Your task to perform on an android device: Open the stopwatch Image 0: 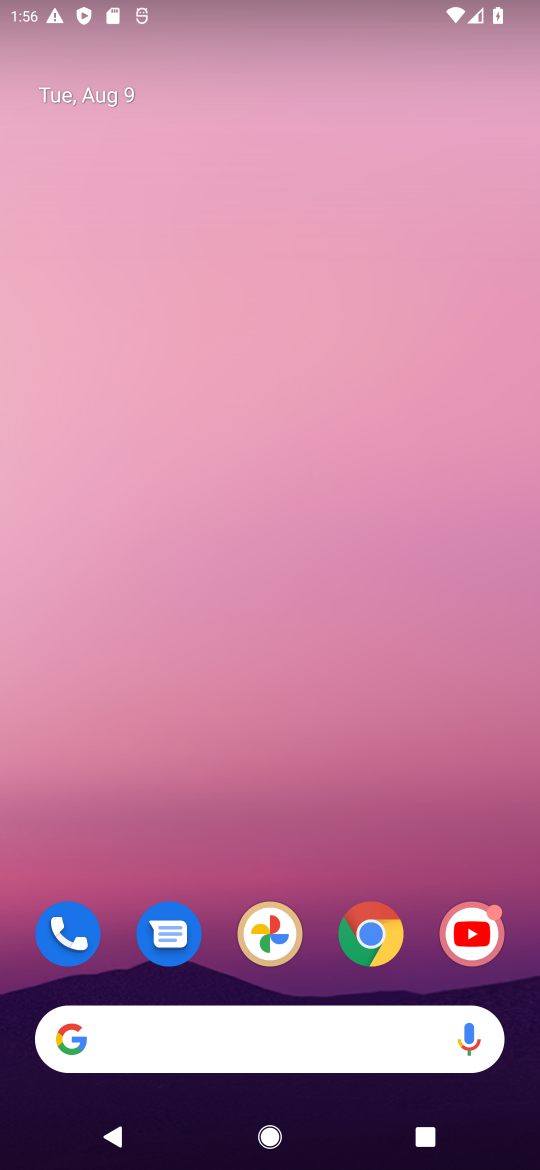
Step 0: drag from (314, 990) to (453, 128)
Your task to perform on an android device: Open the stopwatch Image 1: 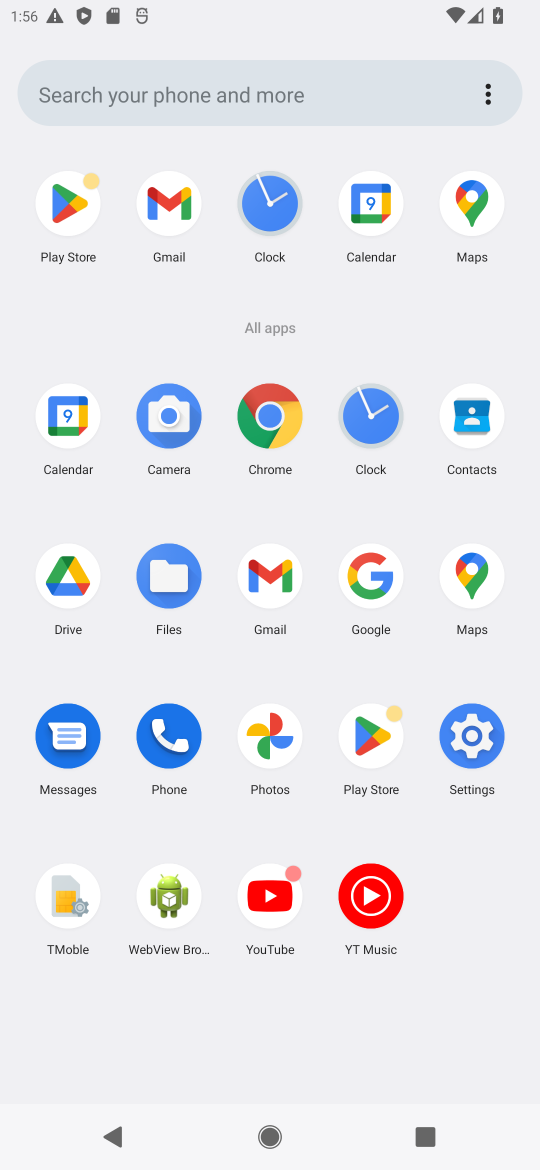
Step 1: click (375, 409)
Your task to perform on an android device: Open the stopwatch Image 2: 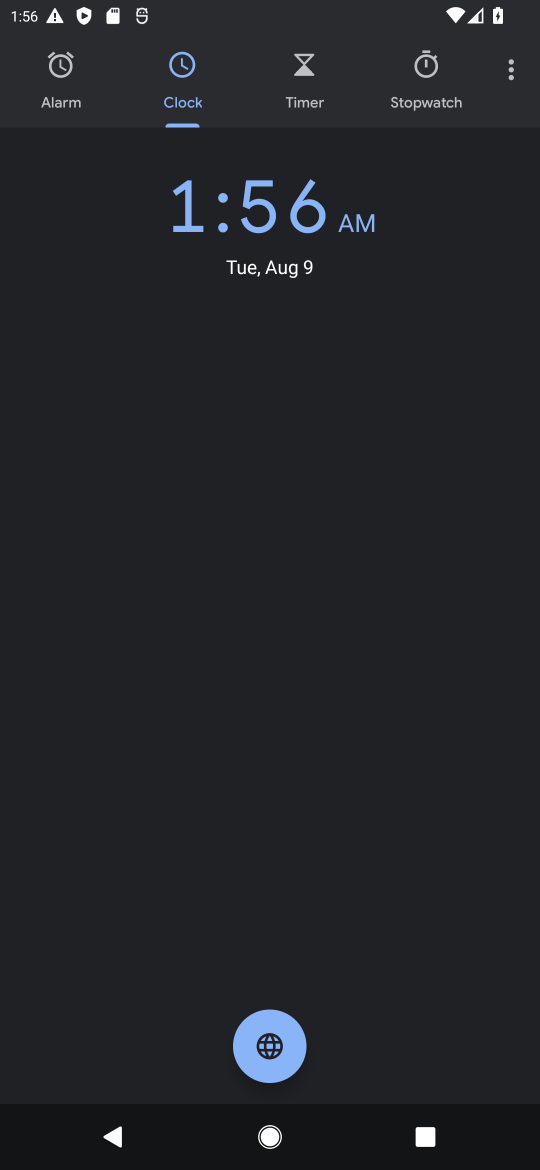
Step 2: click (520, 58)
Your task to perform on an android device: Open the stopwatch Image 3: 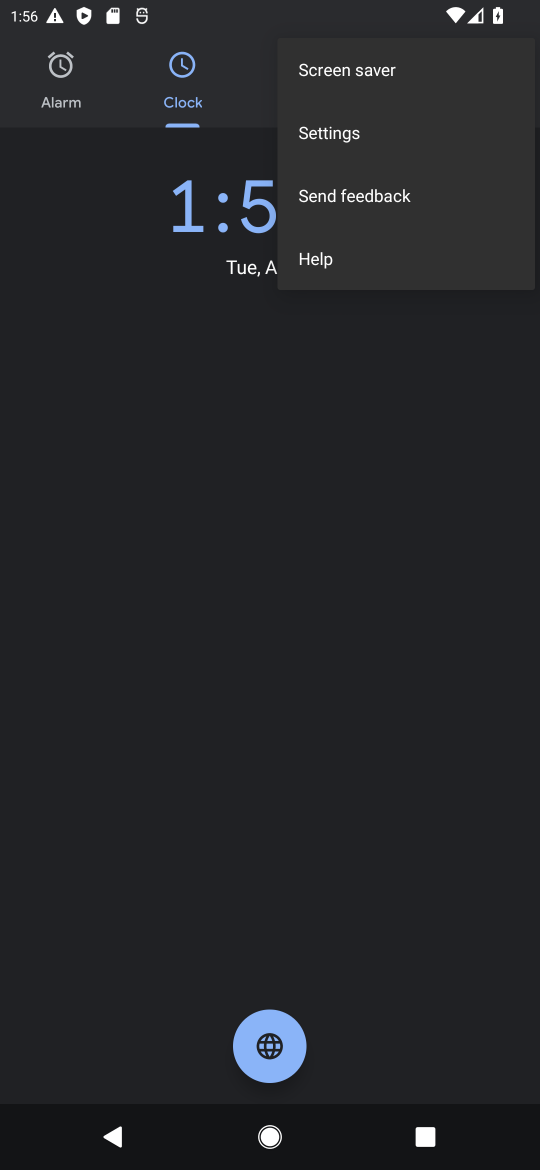
Step 3: click (348, 139)
Your task to perform on an android device: Open the stopwatch Image 4: 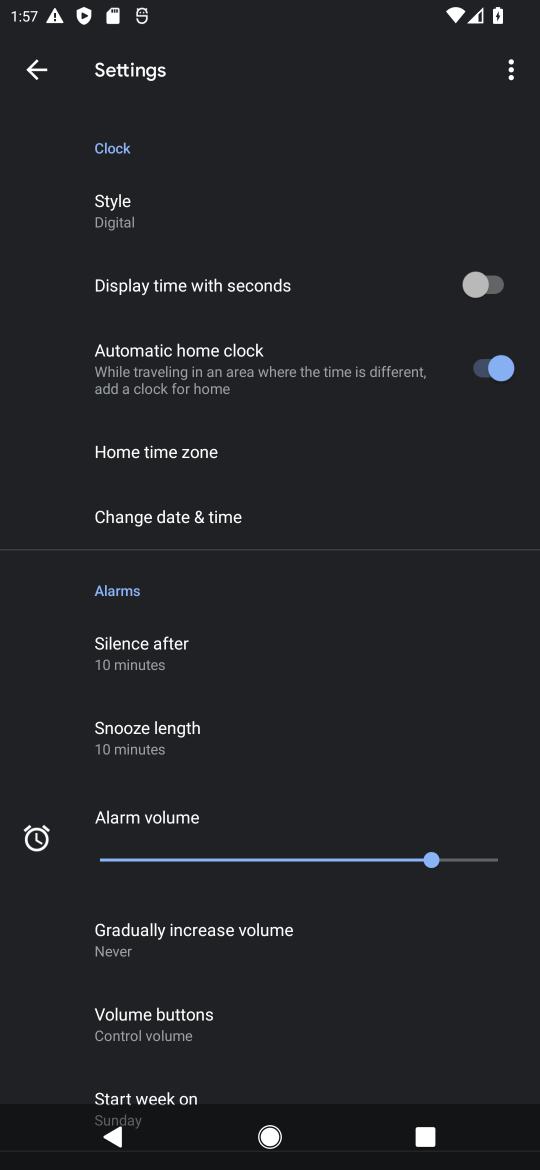
Step 4: click (55, 65)
Your task to perform on an android device: Open the stopwatch Image 5: 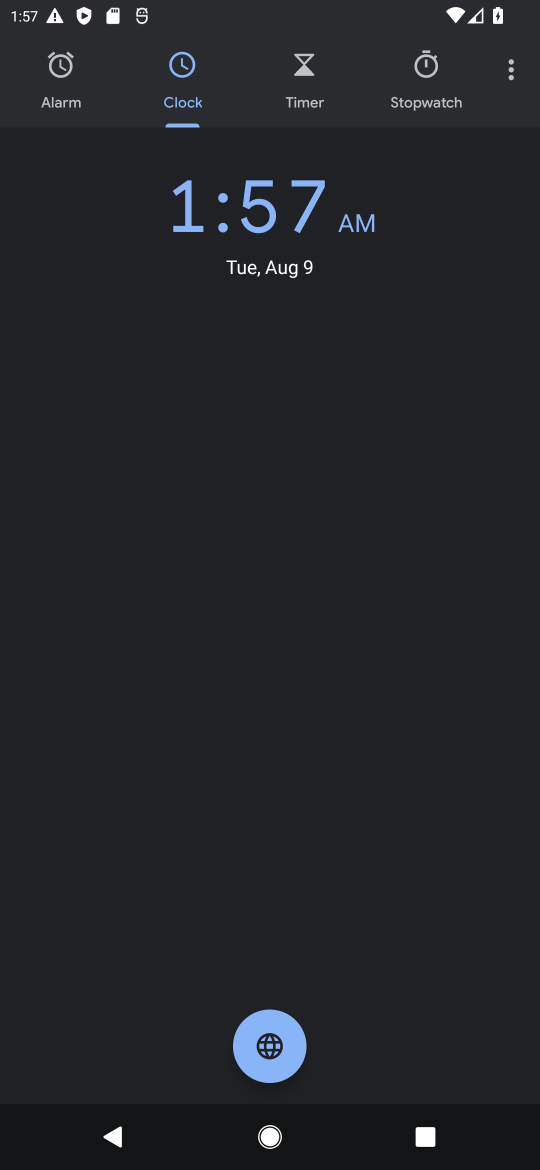
Step 5: click (421, 89)
Your task to perform on an android device: Open the stopwatch Image 6: 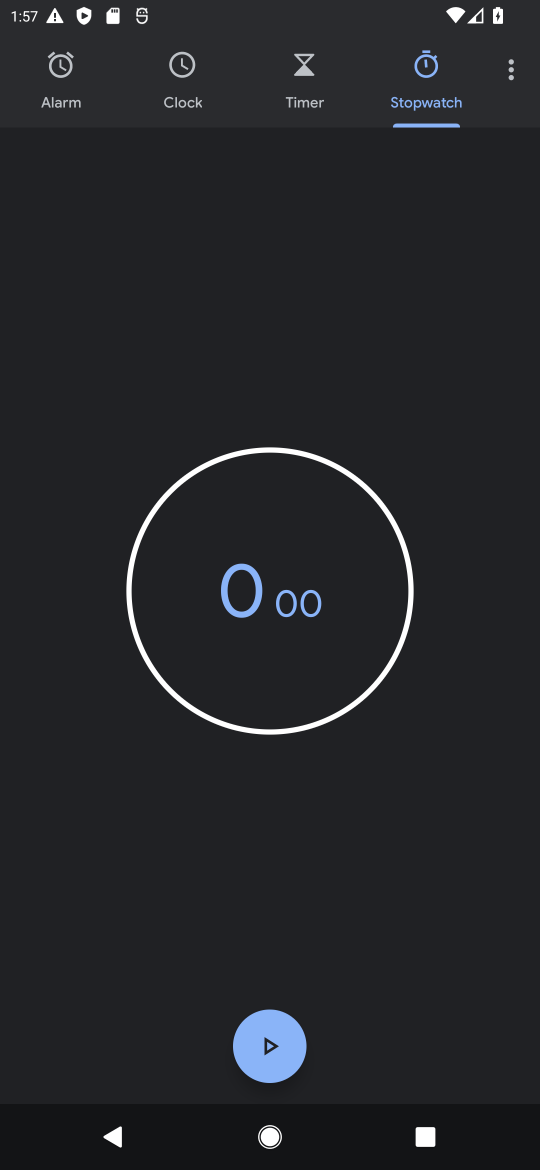
Step 6: task complete